Your task to perform on an android device: Go to privacy settings Image 0: 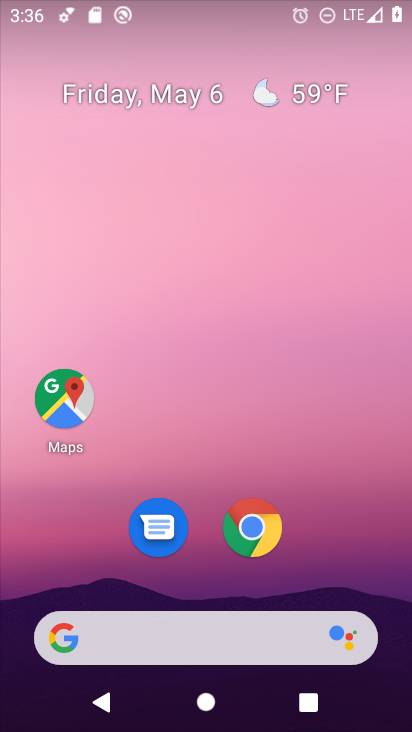
Step 0: drag from (321, 458) to (337, 115)
Your task to perform on an android device: Go to privacy settings Image 1: 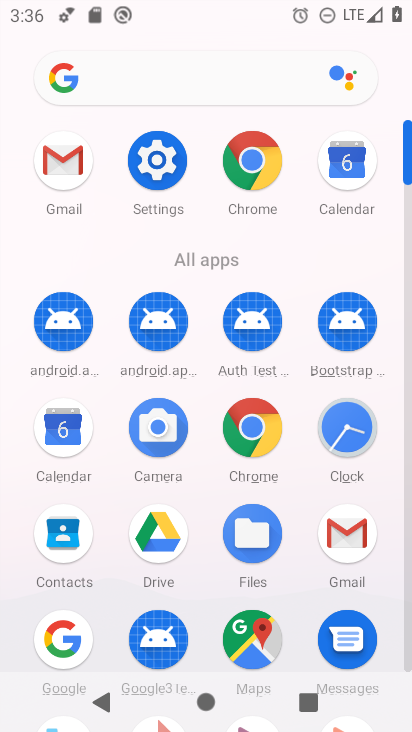
Step 1: drag from (209, 536) to (226, 175)
Your task to perform on an android device: Go to privacy settings Image 2: 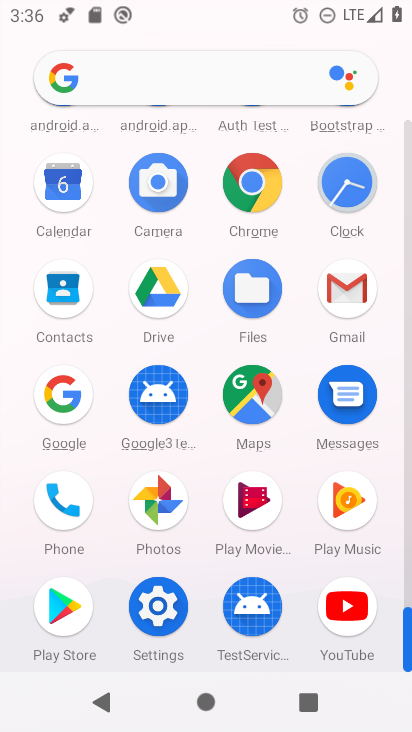
Step 2: click (165, 599)
Your task to perform on an android device: Go to privacy settings Image 3: 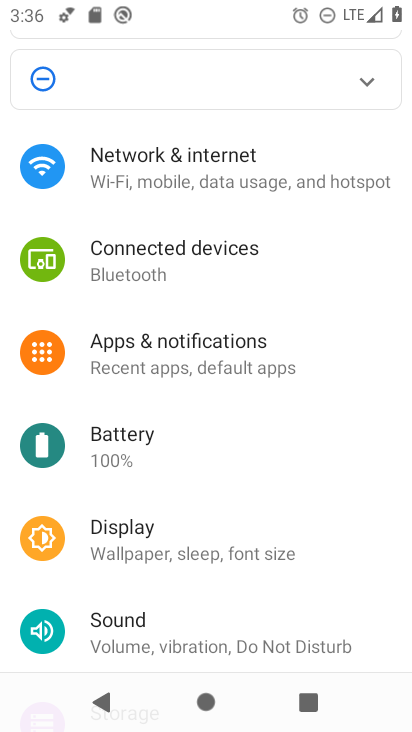
Step 3: drag from (184, 626) to (321, 277)
Your task to perform on an android device: Go to privacy settings Image 4: 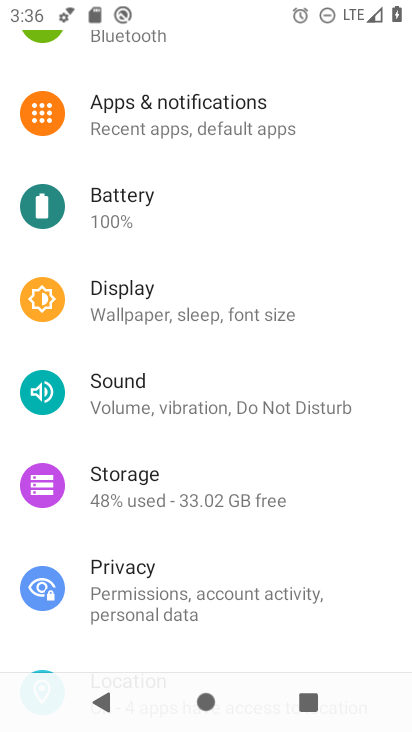
Step 4: click (208, 585)
Your task to perform on an android device: Go to privacy settings Image 5: 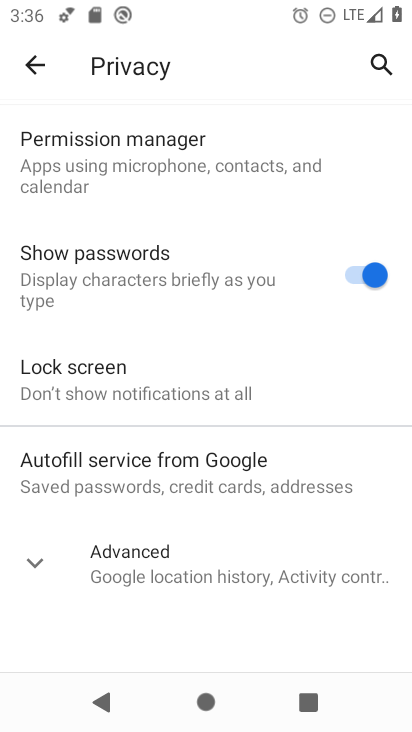
Step 5: task complete